Your task to perform on an android device: Open settings on Google Maps Image 0: 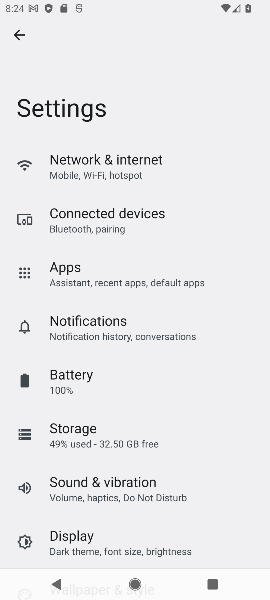
Step 0: press home button
Your task to perform on an android device: Open settings on Google Maps Image 1: 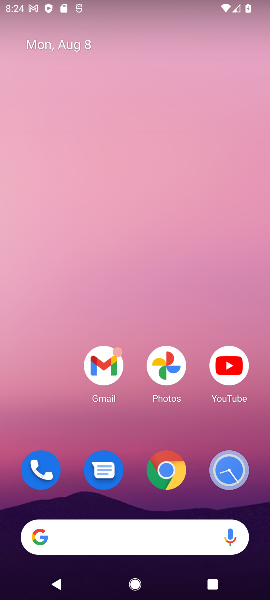
Step 1: drag from (144, 519) to (170, 269)
Your task to perform on an android device: Open settings on Google Maps Image 2: 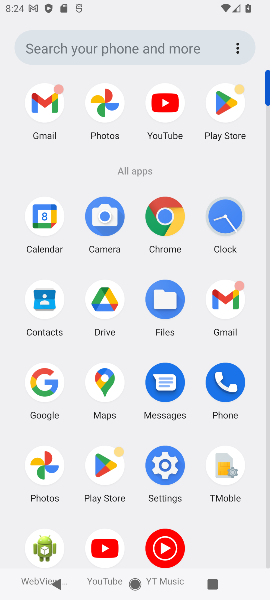
Step 2: click (106, 379)
Your task to perform on an android device: Open settings on Google Maps Image 3: 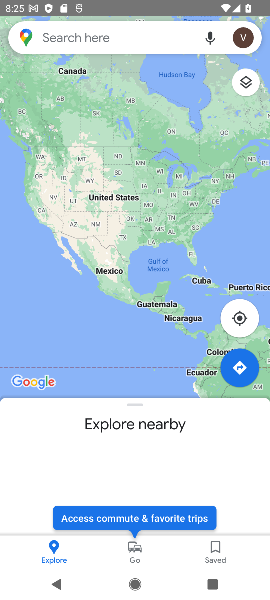
Step 3: click (243, 44)
Your task to perform on an android device: Open settings on Google Maps Image 4: 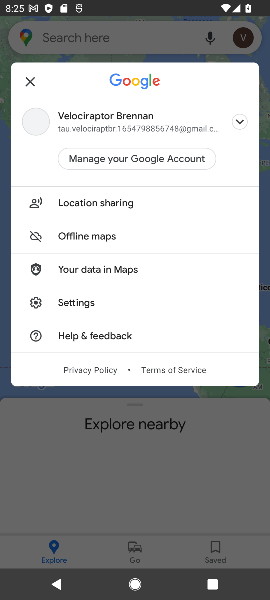
Step 4: click (85, 301)
Your task to perform on an android device: Open settings on Google Maps Image 5: 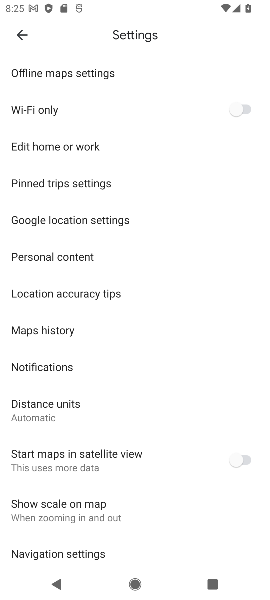
Step 5: task complete